Your task to perform on an android device: Show me the alarms in the clock app Image 0: 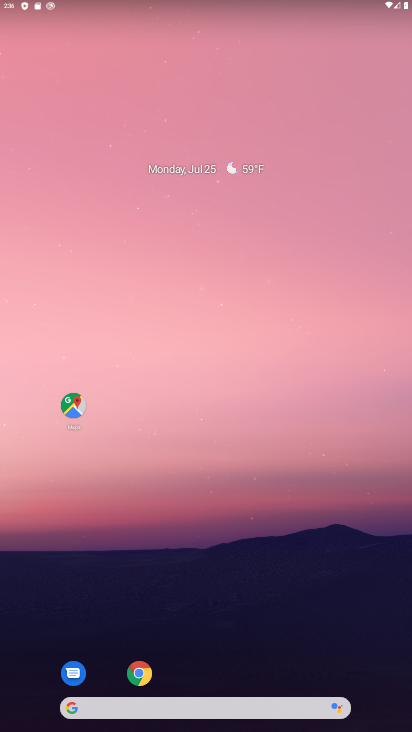
Step 0: drag from (199, 450) to (238, 277)
Your task to perform on an android device: Show me the alarms in the clock app Image 1: 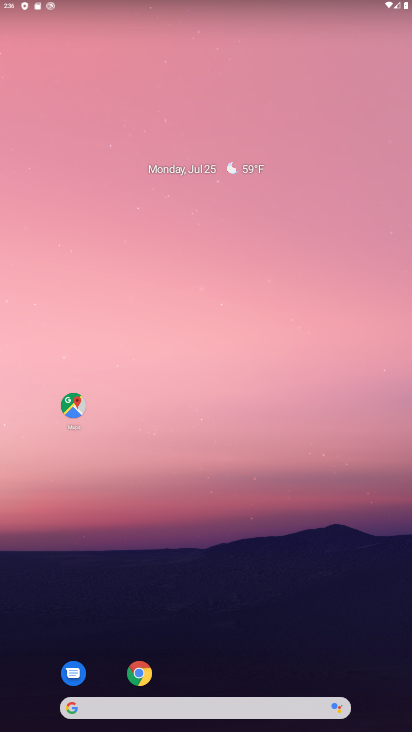
Step 1: drag from (251, 362) to (348, 31)
Your task to perform on an android device: Show me the alarms in the clock app Image 2: 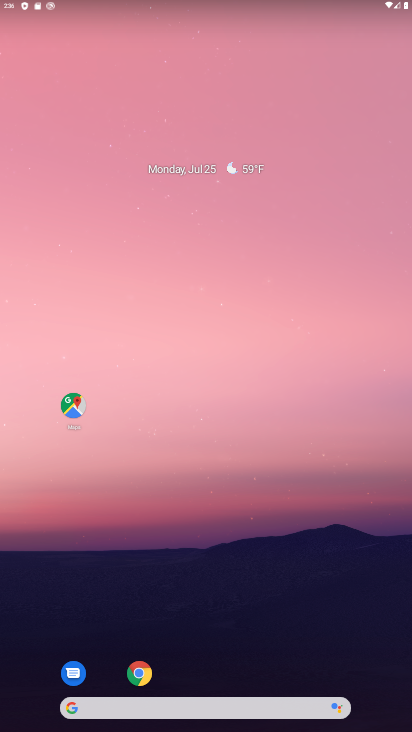
Step 2: drag from (200, 503) to (225, 2)
Your task to perform on an android device: Show me the alarms in the clock app Image 3: 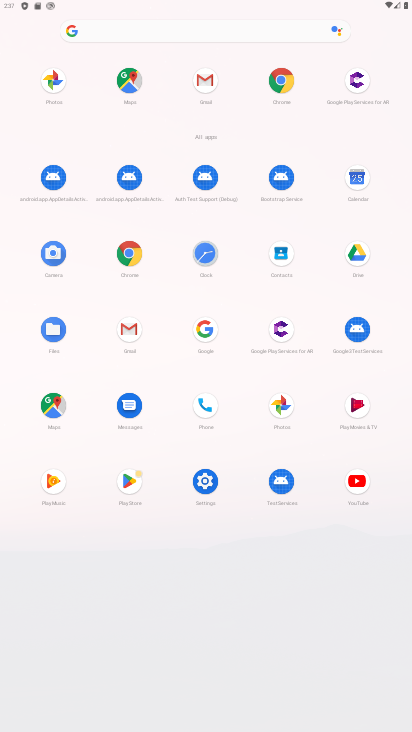
Step 3: click (198, 247)
Your task to perform on an android device: Show me the alarms in the clock app Image 4: 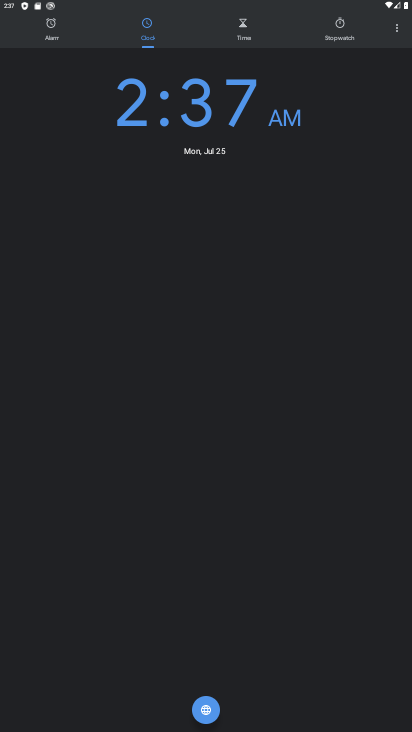
Step 4: click (52, 31)
Your task to perform on an android device: Show me the alarms in the clock app Image 5: 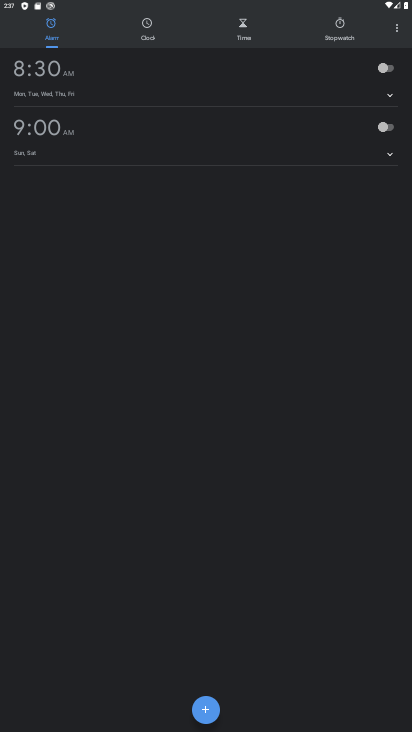
Step 5: click (52, 31)
Your task to perform on an android device: Show me the alarms in the clock app Image 6: 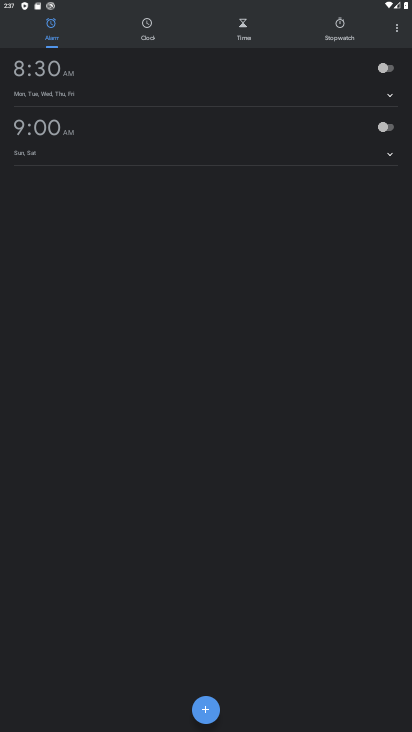
Step 6: task complete